Your task to perform on an android device: open a new tab in the chrome app Image 0: 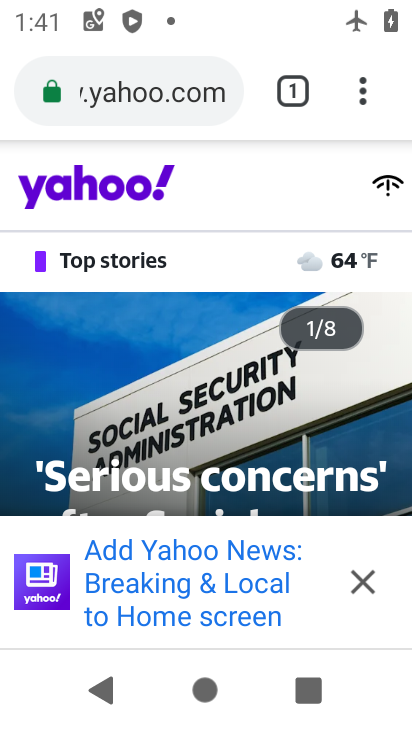
Step 0: press home button
Your task to perform on an android device: open a new tab in the chrome app Image 1: 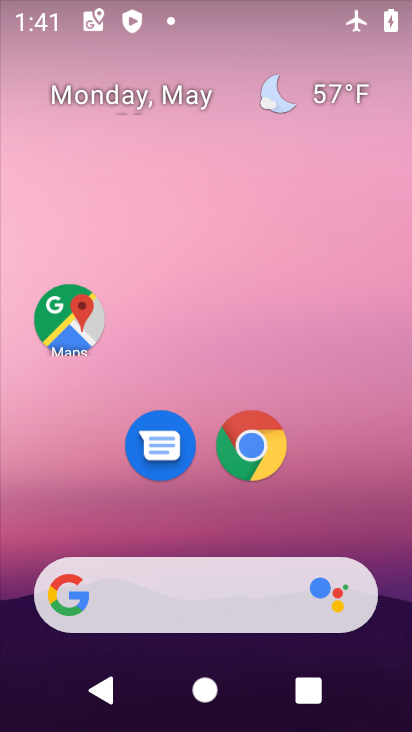
Step 1: click (257, 454)
Your task to perform on an android device: open a new tab in the chrome app Image 2: 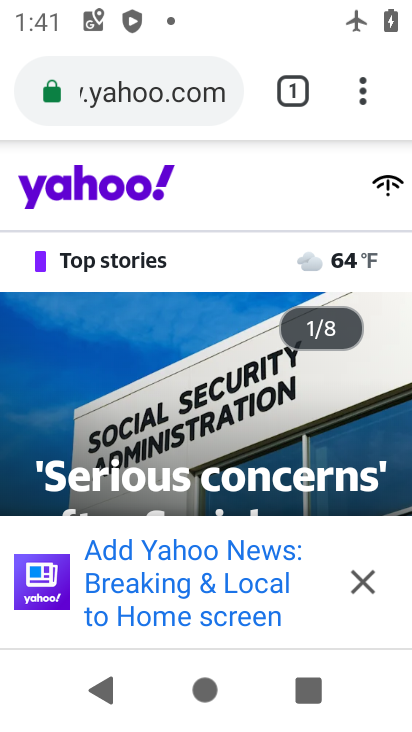
Step 2: click (289, 92)
Your task to perform on an android device: open a new tab in the chrome app Image 3: 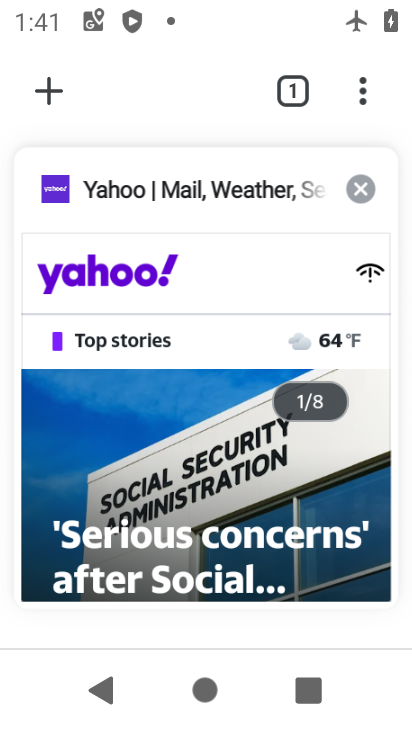
Step 3: click (44, 94)
Your task to perform on an android device: open a new tab in the chrome app Image 4: 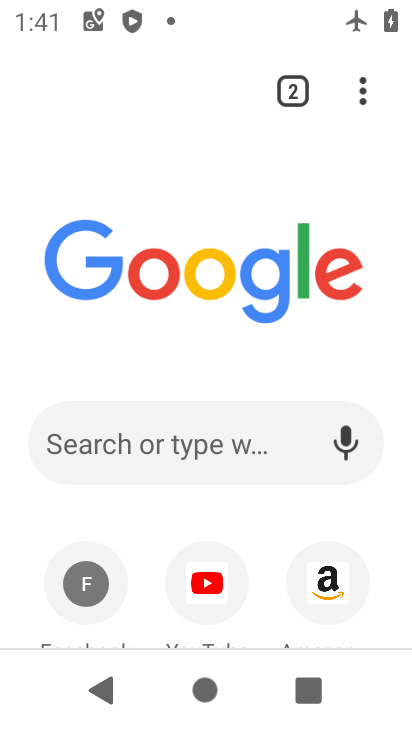
Step 4: task complete